Your task to perform on an android device: Open Maps and search for coffee Image 0: 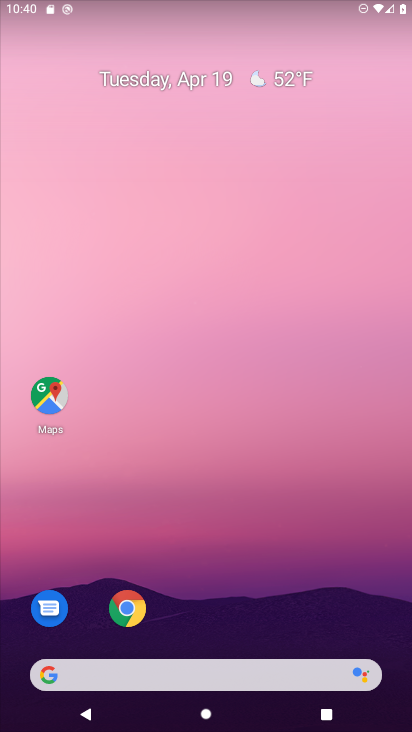
Step 0: drag from (342, 375) to (278, 21)
Your task to perform on an android device: Open Maps and search for coffee Image 1: 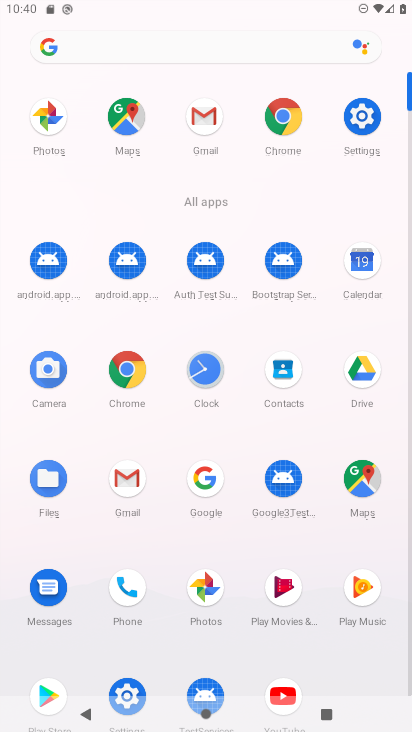
Step 1: click (123, 134)
Your task to perform on an android device: Open Maps and search for coffee Image 2: 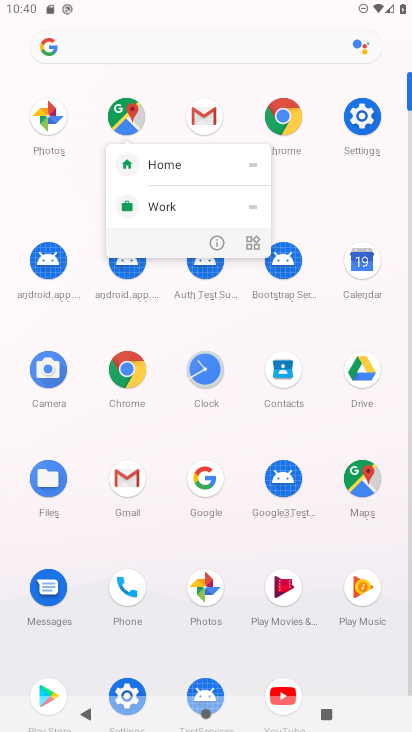
Step 2: click (123, 134)
Your task to perform on an android device: Open Maps and search for coffee Image 3: 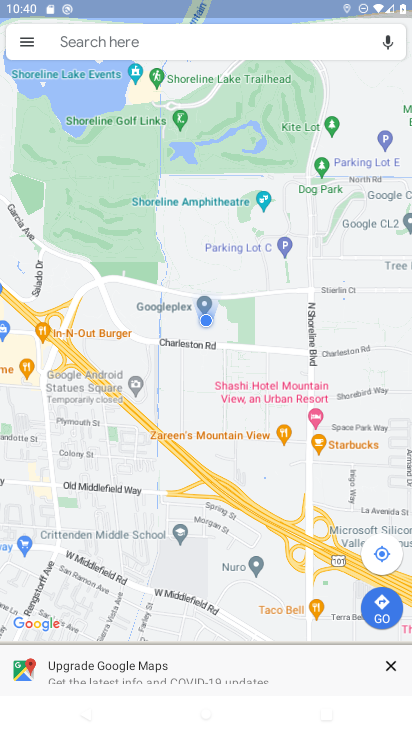
Step 3: click (169, 47)
Your task to perform on an android device: Open Maps and search for coffee Image 4: 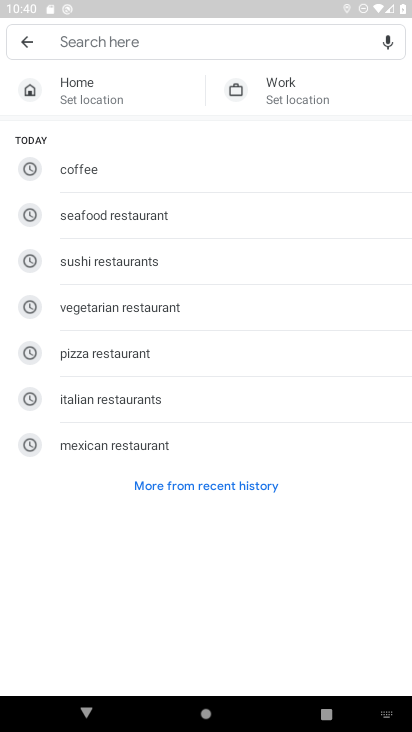
Step 4: click (123, 166)
Your task to perform on an android device: Open Maps and search for coffee Image 5: 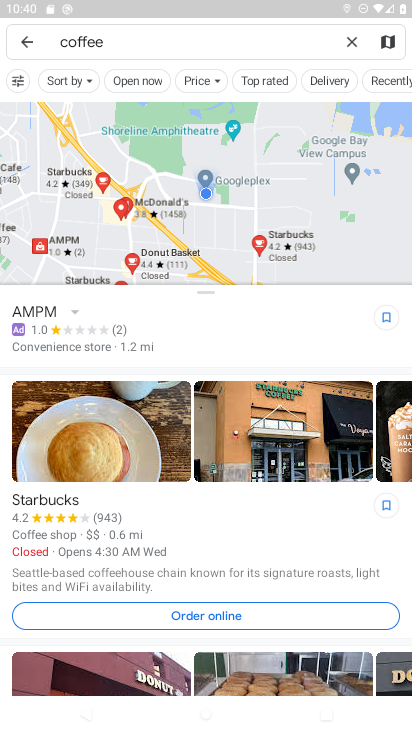
Step 5: task complete